Your task to perform on an android device: Search for pizza restaurants on Maps Image 0: 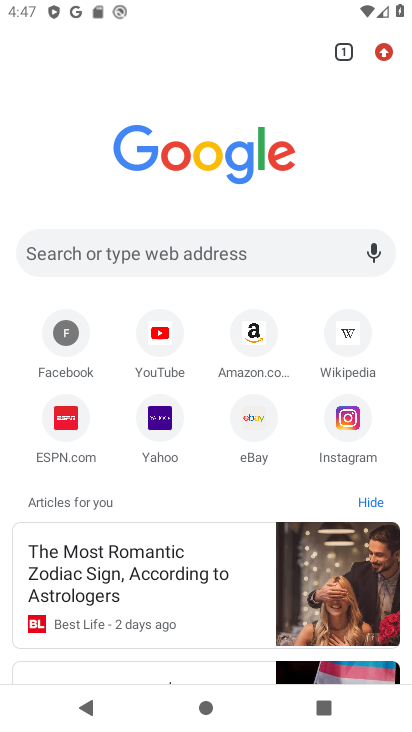
Step 0: press home button
Your task to perform on an android device: Search for pizza restaurants on Maps Image 1: 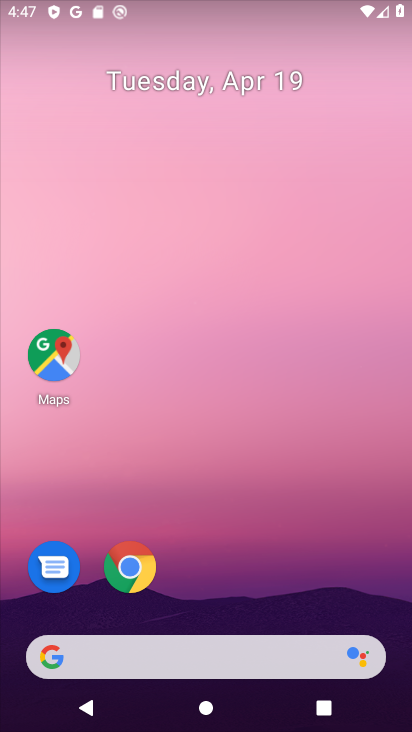
Step 1: drag from (285, 542) to (291, 0)
Your task to perform on an android device: Search for pizza restaurants on Maps Image 2: 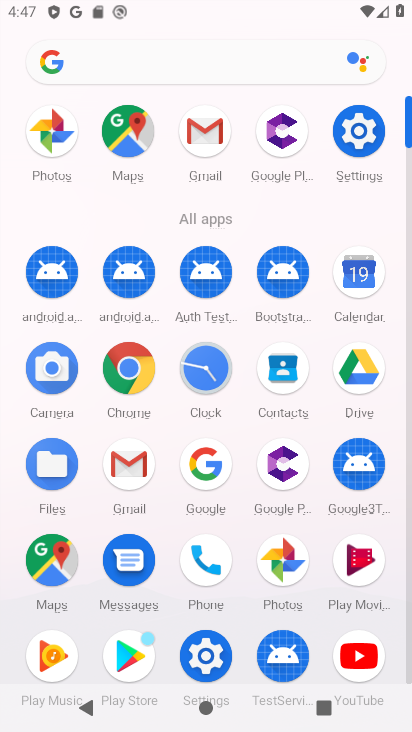
Step 2: drag from (186, 564) to (179, 236)
Your task to perform on an android device: Search for pizza restaurants on Maps Image 3: 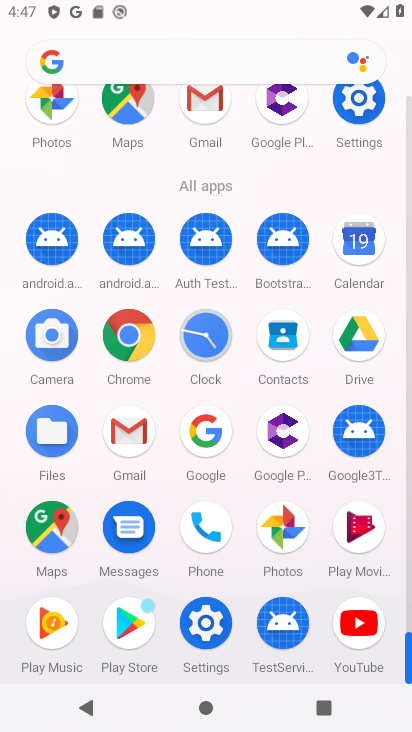
Step 3: click (55, 529)
Your task to perform on an android device: Search for pizza restaurants on Maps Image 4: 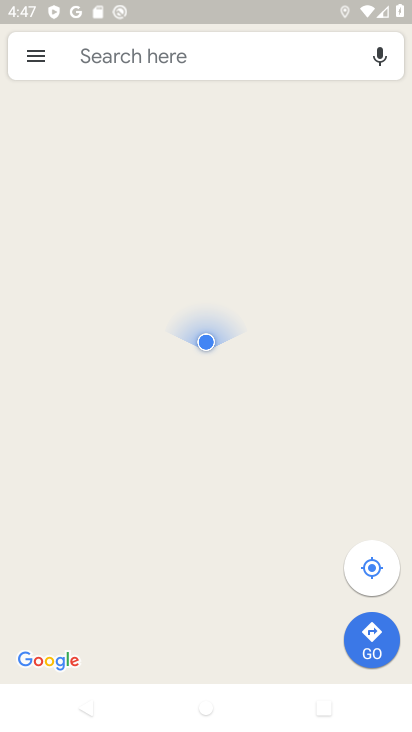
Step 4: click (133, 73)
Your task to perform on an android device: Search for pizza restaurants on Maps Image 5: 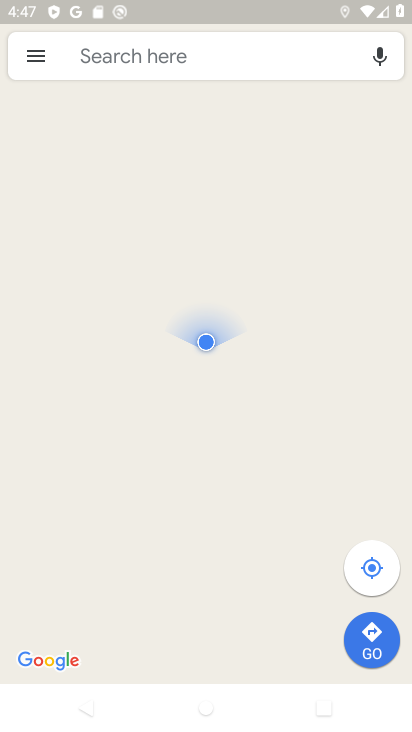
Step 5: click (148, 57)
Your task to perform on an android device: Search for pizza restaurants on Maps Image 6: 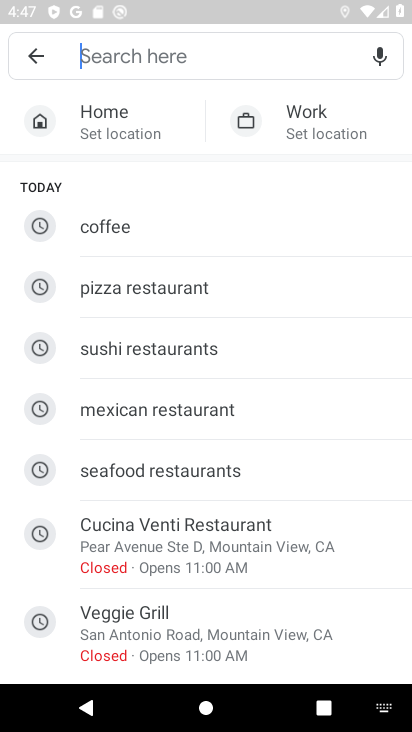
Step 6: type "pizza restaurant"
Your task to perform on an android device: Search for pizza restaurants on Maps Image 7: 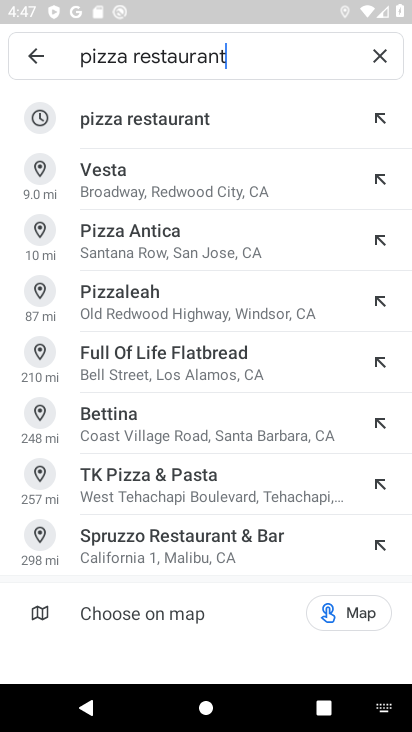
Step 7: click (201, 129)
Your task to perform on an android device: Search for pizza restaurants on Maps Image 8: 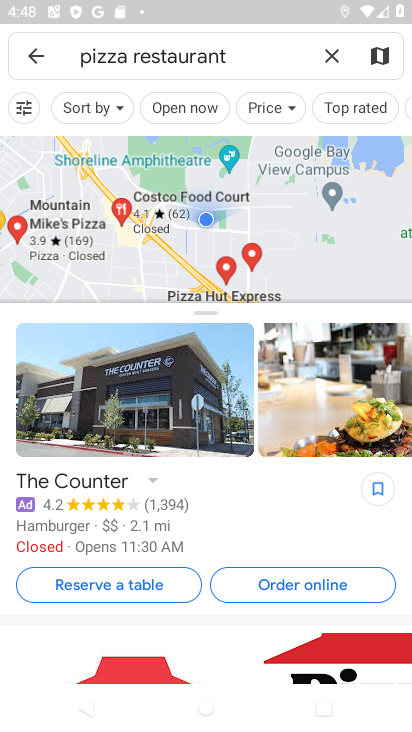
Step 8: task complete